Your task to perform on an android device: Open ESPN.com Image 0: 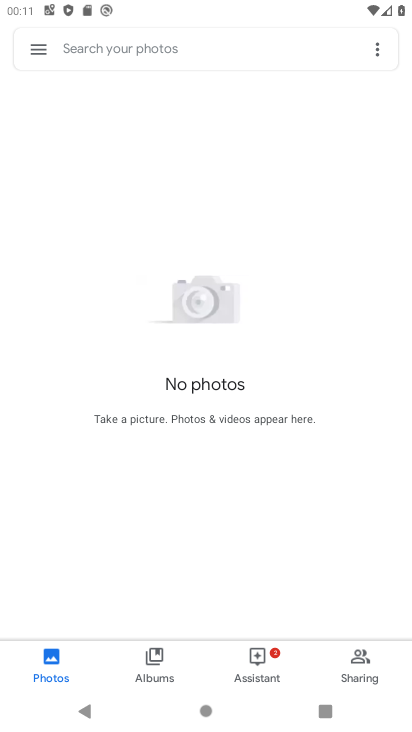
Step 0: press home button
Your task to perform on an android device: Open ESPN.com Image 1: 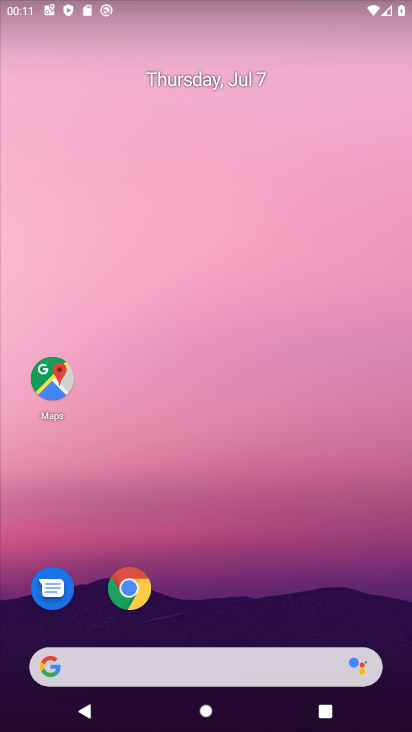
Step 1: drag from (235, 684) to (237, 161)
Your task to perform on an android device: Open ESPN.com Image 2: 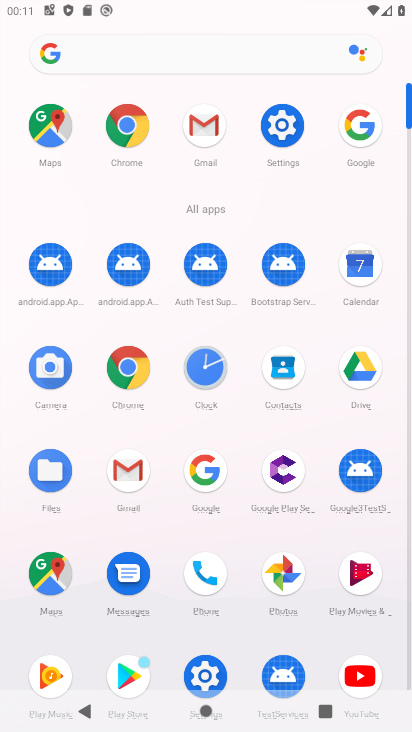
Step 2: click (123, 123)
Your task to perform on an android device: Open ESPN.com Image 3: 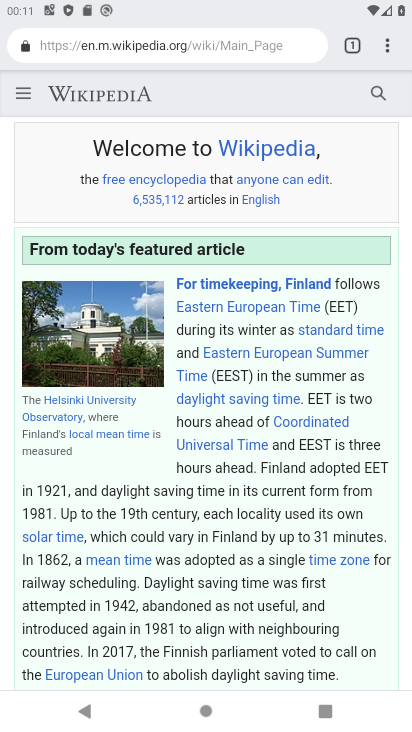
Step 3: click (386, 48)
Your task to perform on an android device: Open ESPN.com Image 4: 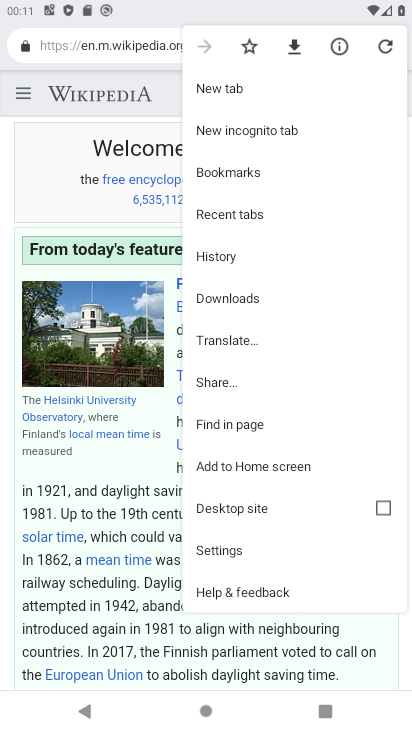
Step 4: click (219, 85)
Your task to perform on an android device: Open ESPN.com Image 5: 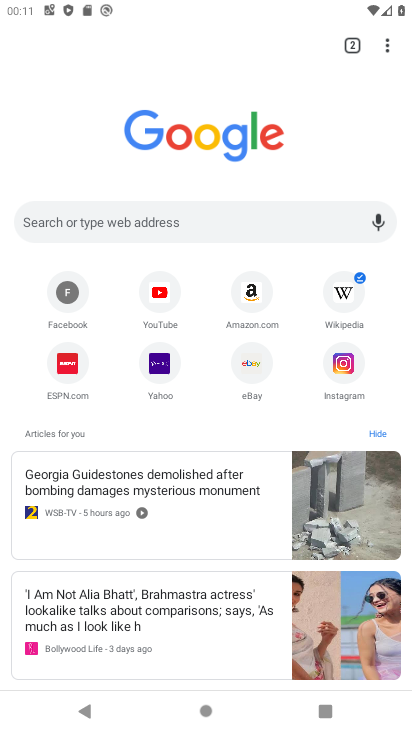
Step 5: click (62, 364)
Your task to perform on an android device: Open ESPN.com Image 6: 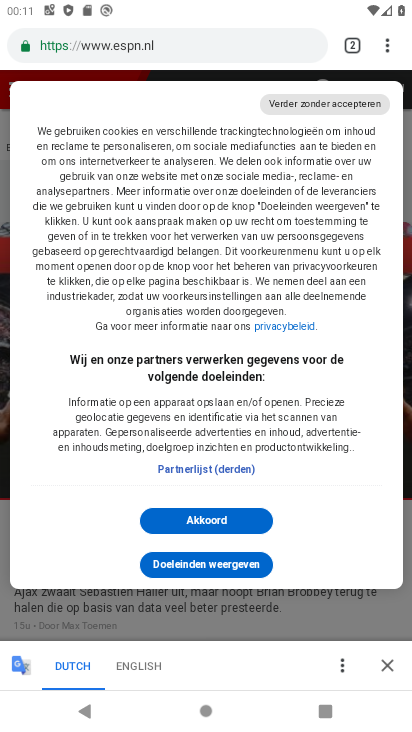
Step 6: click (216, 516)
Your task to perform on an android device: Open ESPN.com Image 7: 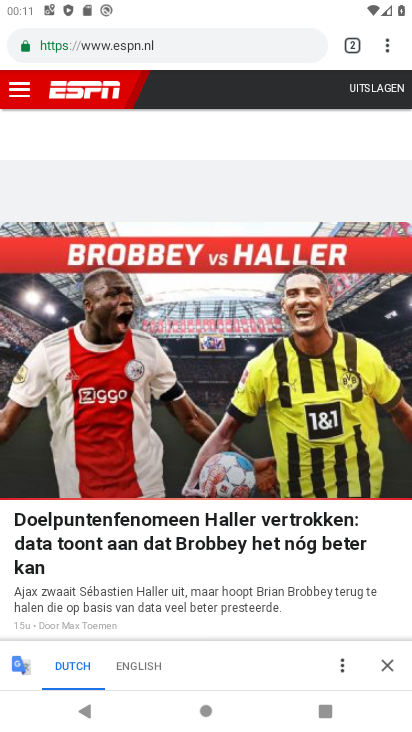
Step 7: task complete